Your task to perform on an android device: search for starred emails in the gmail app Image 0: 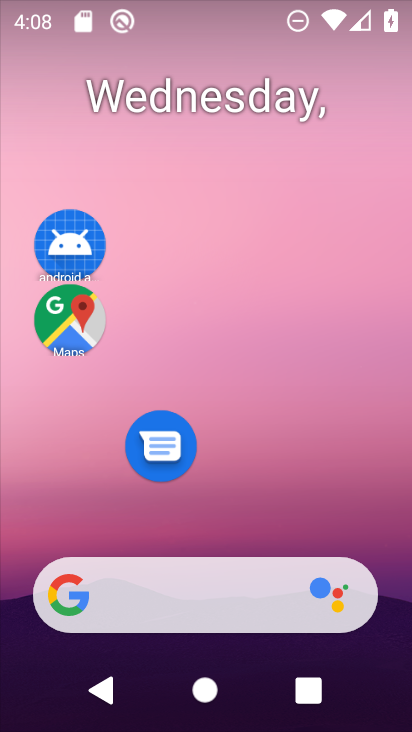
Step 0: drag from (284, 523) to (317, 179)
Your task to perform on an android device: search for starred emails in the gmail app Image 1: 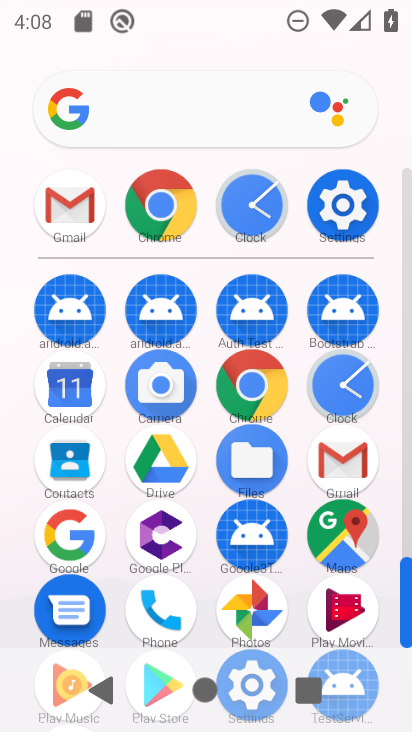
Step 1: click (341, 462)
Your task to perform on an android device: search for starred emails in the gmail app Image 2: 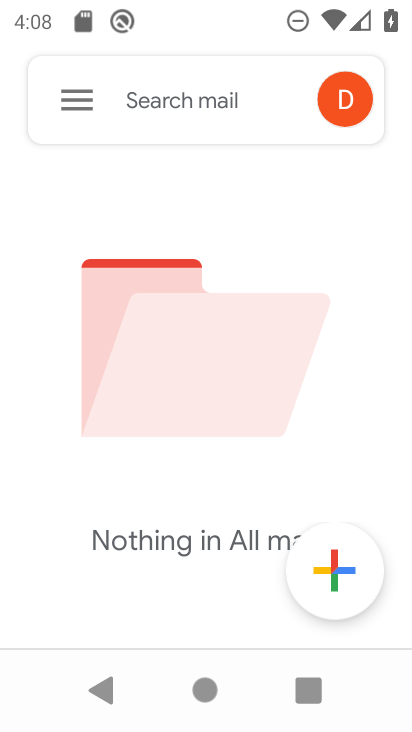
Step 2: click (96, 88)
Your task to perform on an android device: search for starred emails in the gmail app Image 3: 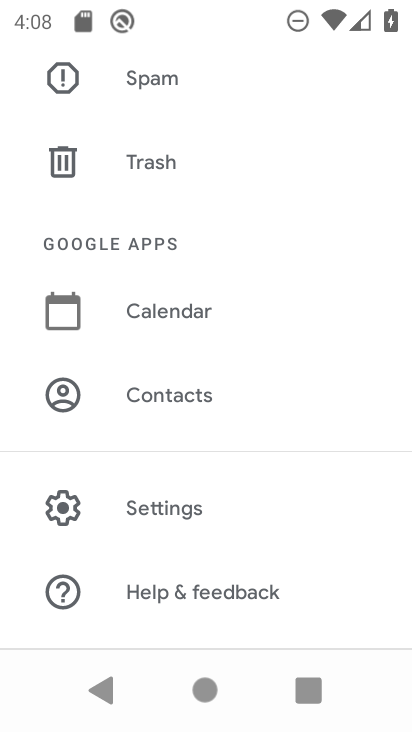
Step 3: drag from (172, 291) to (218, 568)
Your task to perform on an android device: search for starred emails in the gmail app Image 4: 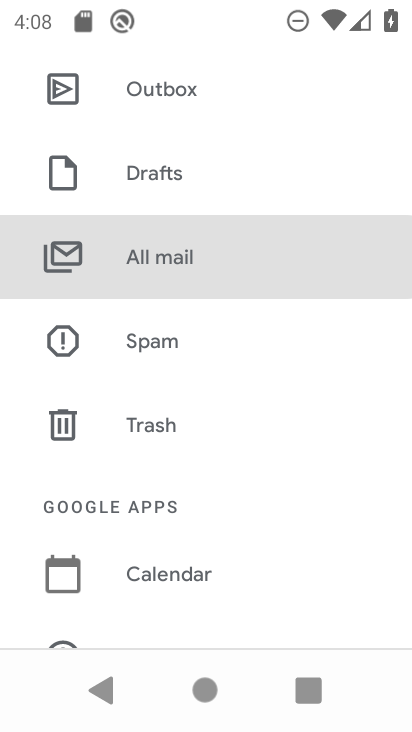
Step 4: drag from (218, 252) to (215, 558)
Your task to perform on an android device: search for starred emails in the gmail app Image 5: 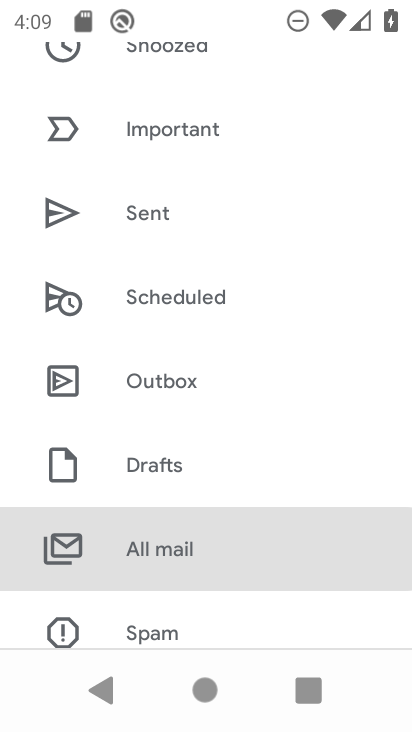
Step 5: drag from (219, 301) to (191, 572)
Your task to perform on an android device: search for starred emails in the gmail app Image 6: 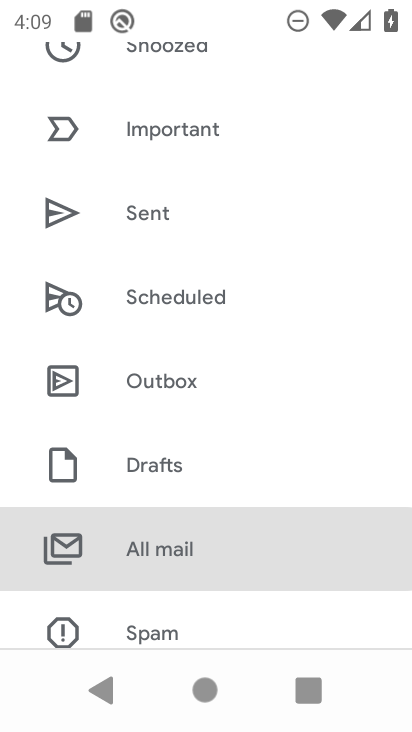
Step 6: drag from (161, 175) to (163, 439)
Your task to perform on an android device: search for starred emails in the gmail app Image 7: 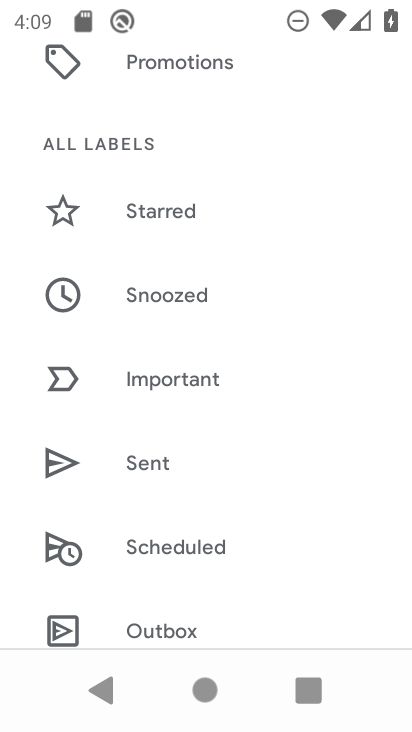
Step 7: click (183, 219)
Your task to perform on an android device: search for starred emails in the gmail app Image 8: 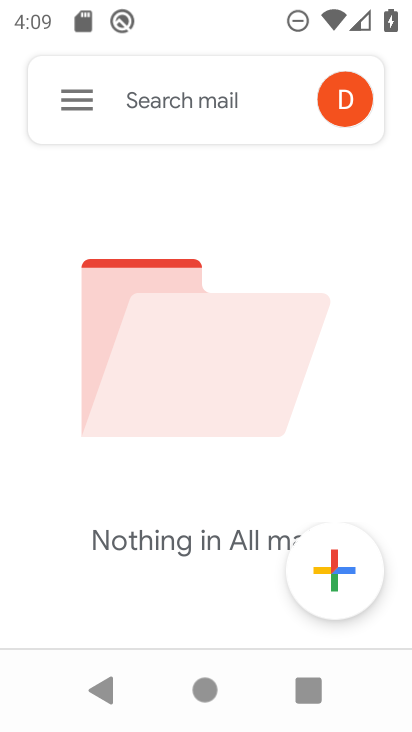
Step 8: task complete